Your task to perform on an android device: show emergency info Image 0: 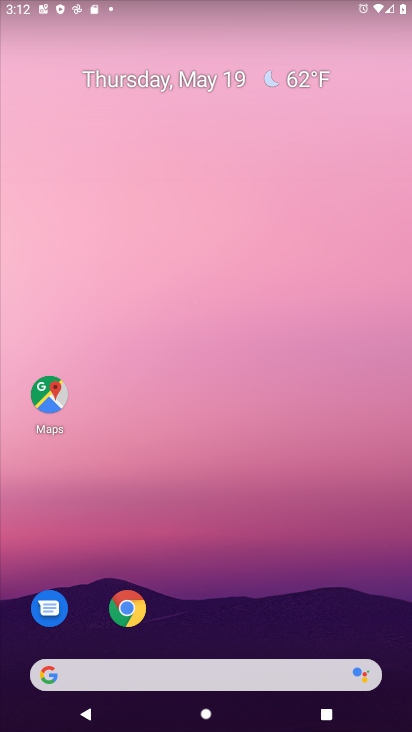
Step 0: drag from (229, 592) to (229, 59)
Your task to perform on an android device: show emergency info Image 1: 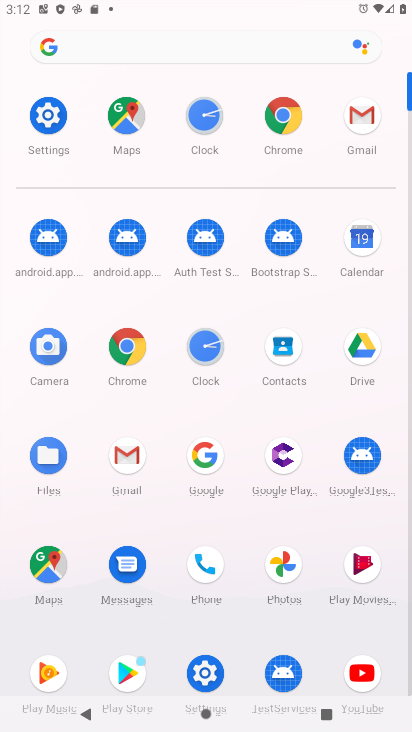
Step 1: click (71, 143)
Your task to perform on an android device: show emergency info Image 2: 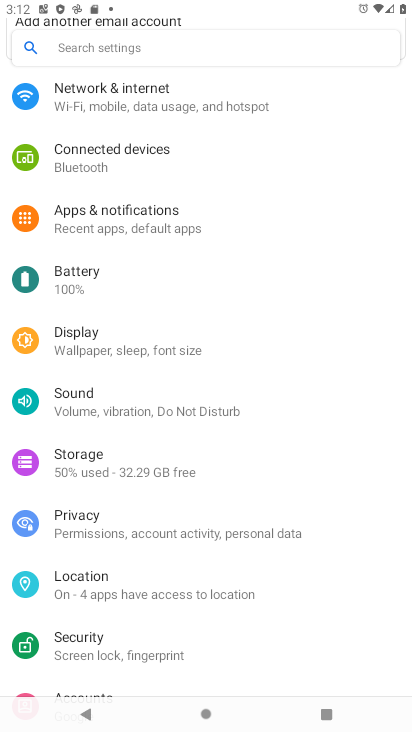
Step 2: drag from (144, 530) to (78, 182)
Your task to perform on an android device: show emergency info Image 3: 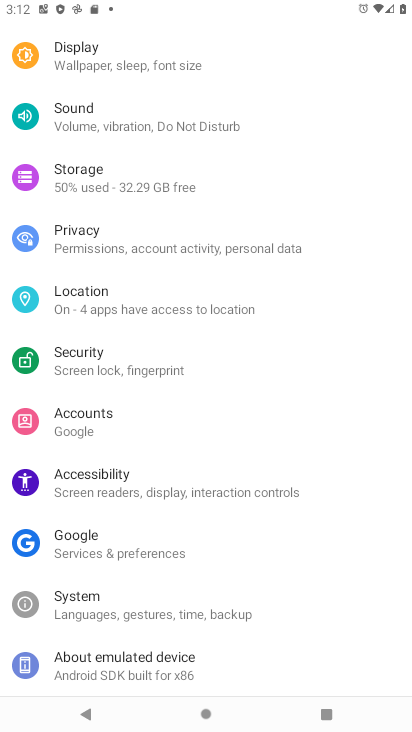
Step 3: click (140, 679)
Your task to perform on an android device: show emergency info Image 4: 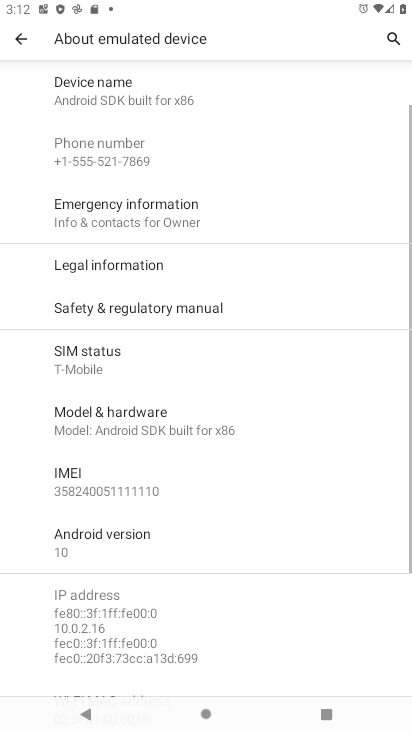
Step 4: click (144, 222)
Your task to perform on an android device: show emergency info Image 5: 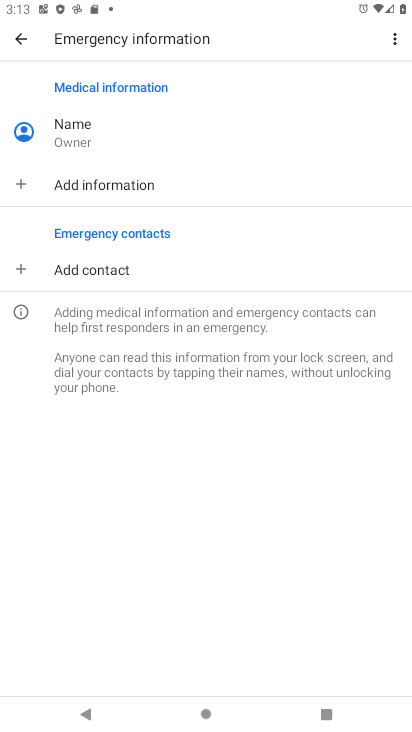
Step 5: task complete